Your task to perform on an android device: Search for Italian restaurants on Maps Image 0: 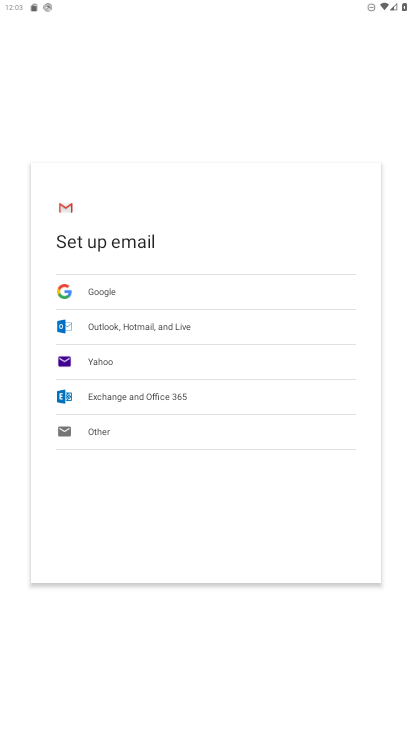
Step 0: press home button
Your task to perform on an android device: Search for Italian restaurants on Maps Image 1: 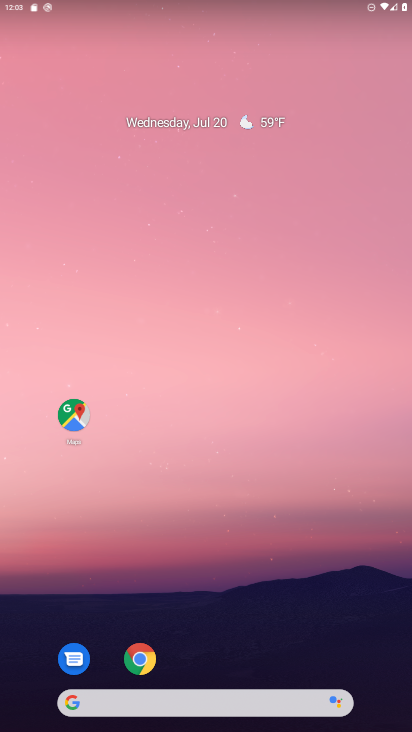
Step 1: drag from (266, 589) to (321, 139)
Your task to perform on an android device: Search for Italian restaurants on Maps Image 2: 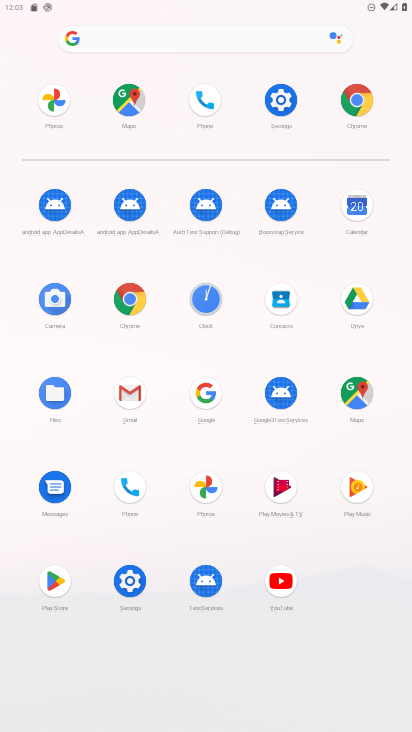
Step 2: click (354, 402)
Your task to perform on an android device: Search for Italian restaurants on Maps Image 3: 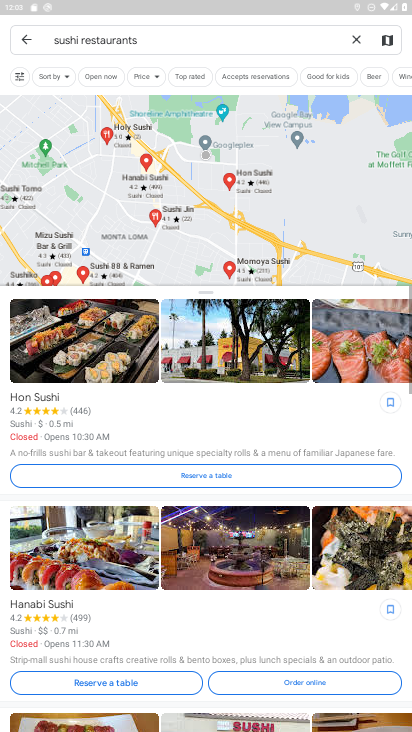
Step 3: click (350, 36)
Your task to perform on an android device: Search for Italian restaurants on Maps Image 4: 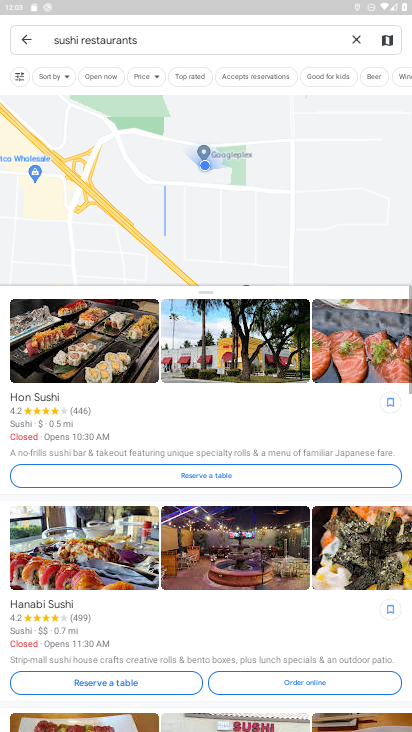
Step 4: click (352, 38)
Your task to perform on an android device: Search for Italian restaurants on Maps Image 5: 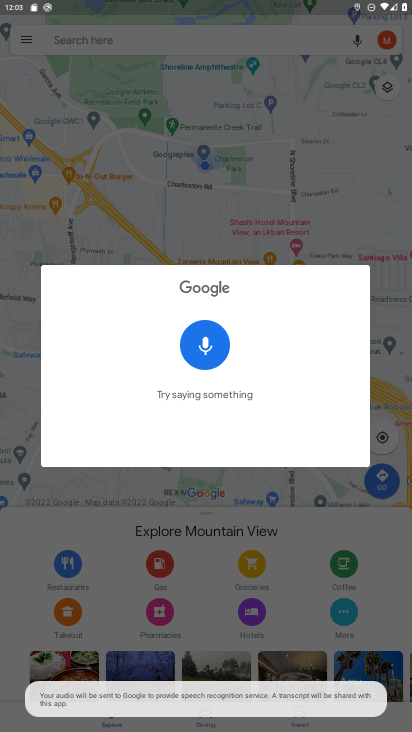
Step 5: click (280, 41)
Your task to perform on an android device: Search for Italian restaurants on Maps Image 6: 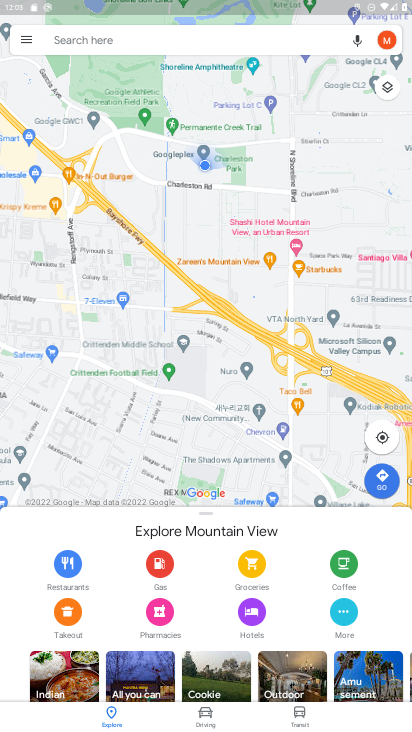
Step 6: click (280, 41)
Your task to perform on an android device: Search for Italian restaurants on Maps Image 7: 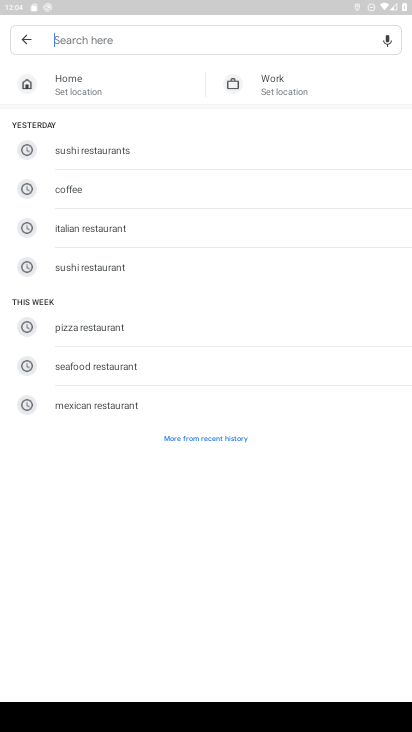
Step 7: type "Italian restaurants"
Your task to perform on an android device: Search for Italian restaurants on Maps Image 8: 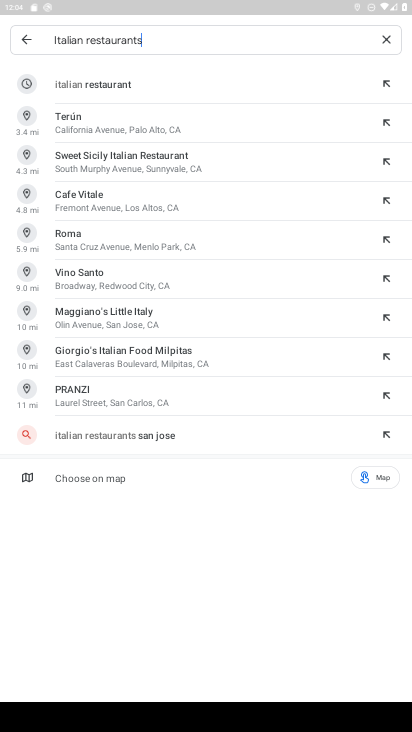
Step 8: press enter
Your task to perform on an android device: Search for Italian restaurants on Maps Image 9: 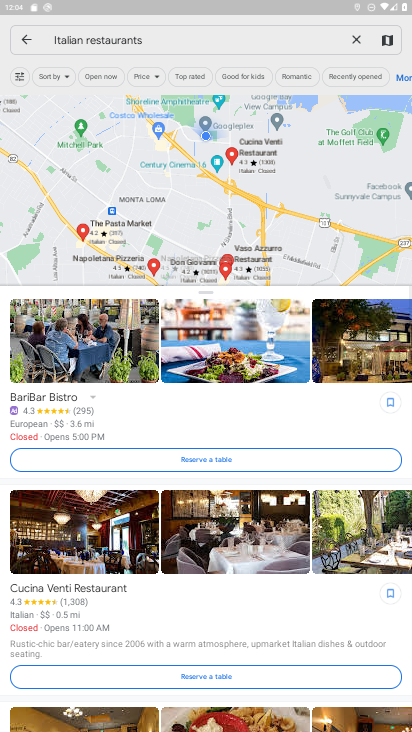
Step 9: task complete